Your task to perform on an android device: clear all cookies in the chrome app Image 0: 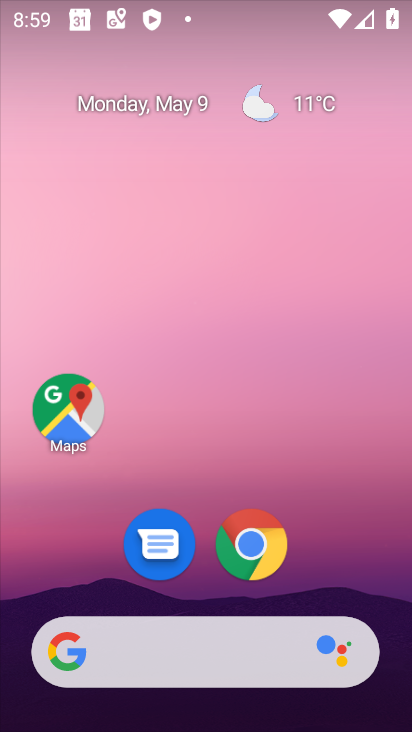
Step 0: click (249, 547)
Your task to perform on an android device: clear all cookies in the chrome app Image 1: 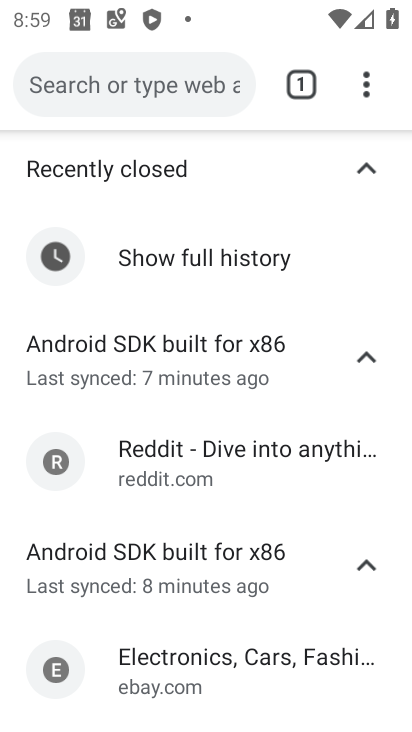
Step 1: click (366, 85)
Your task to perform on an android device: clear all cookies in the chrome app Image 2: 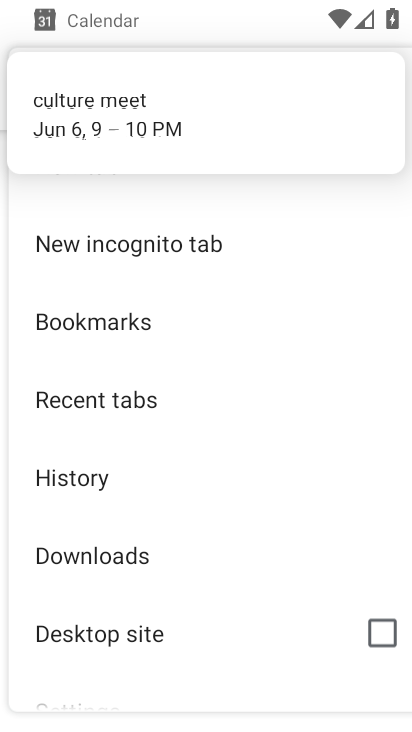
Step 2: click (72, 473)
Your task to perform on an android device: clear all cookies in the chrome app Image 3: 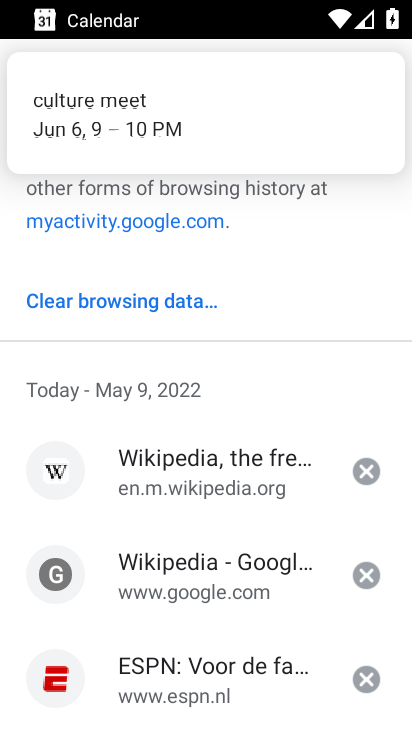
Step 3: click (171, 306)
Your task to perform on an android device: clear all cookies in the chrome app Image 4: 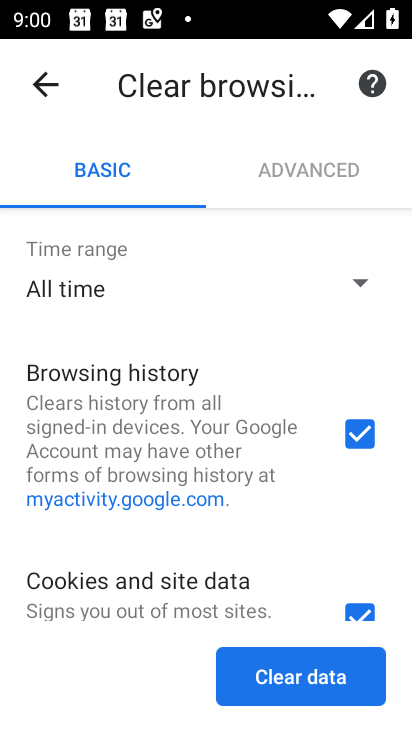
Step 4: click (358, 433)
Your task to perform on an android device: clear all cookies in the chrome app Image 5: 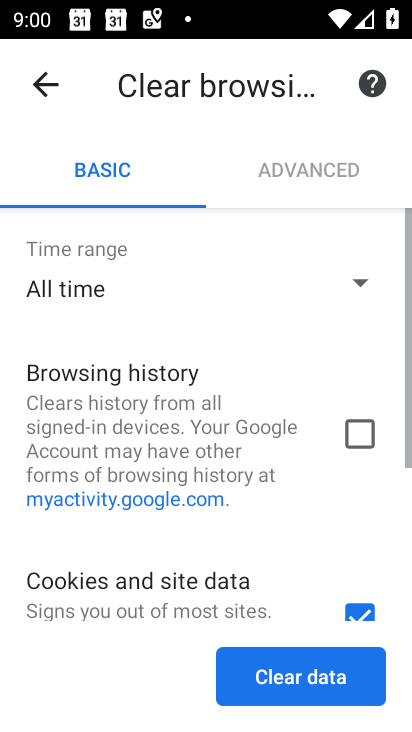
Step 5: click (316, 682)
Your task to perform on an android device: clear all cookies in the chrome app Image 6: 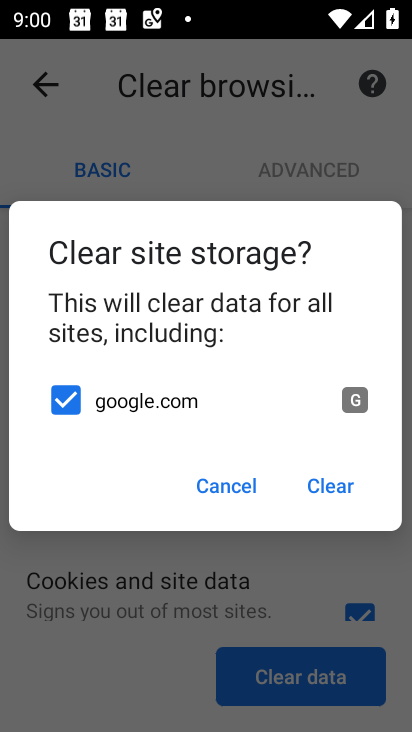
Step 6: click (326, 484)
Your task to perform on an android device: clear all cookies in the chrome app Image 7: 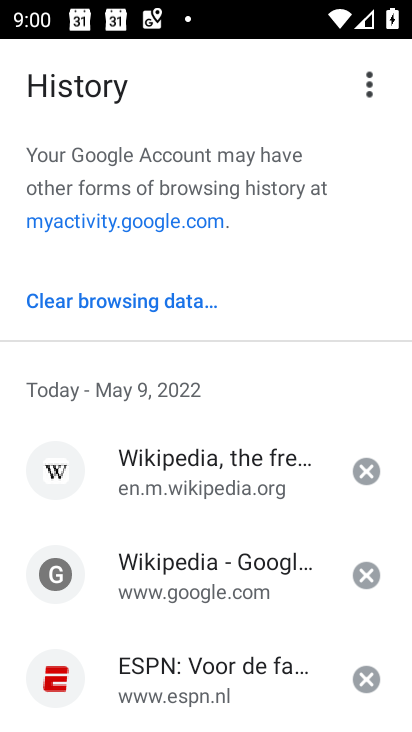
Step 7: task complete